Your task to perform on an android device: Do I have any events today? Image 0: 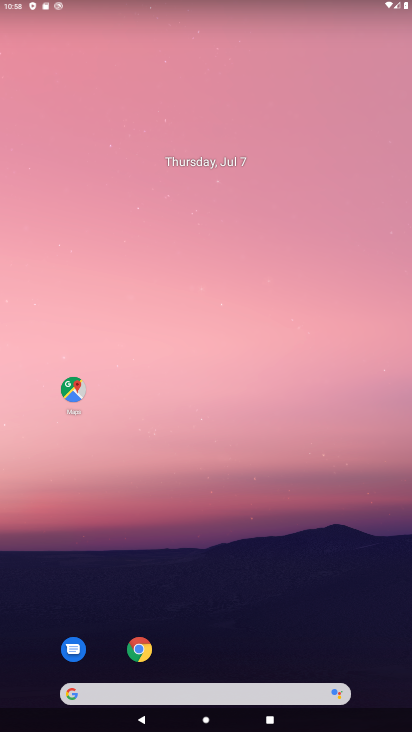
Step 0: drag from (210, 640) to (161, 26)
Your task to perform on an android device: Do I have any events today? Image 1: 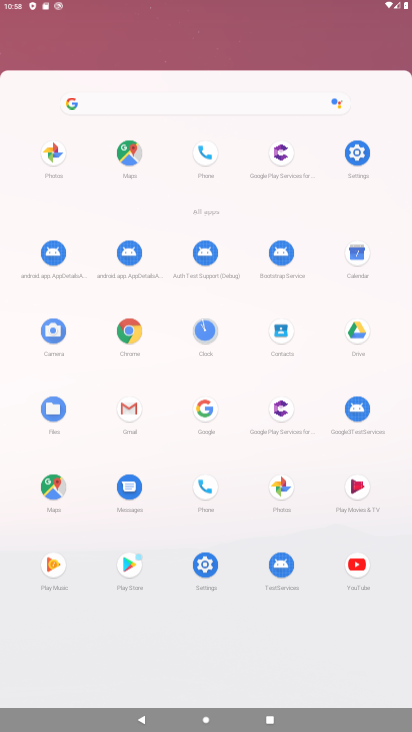
Step 1: drag from (305, 461) to (245, 50)
Your task to perform on an android device: Do I have any events today? Image 2: 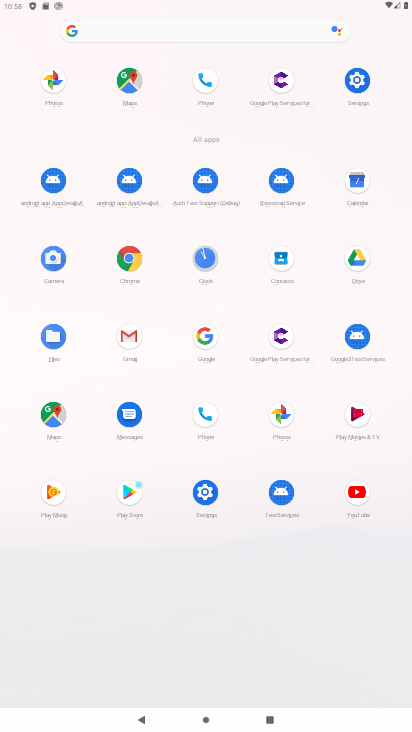
Step 2: drag from (271, 338) to (221, 3)
Your task to perform on an android device: Do I have any events today? Image 3: 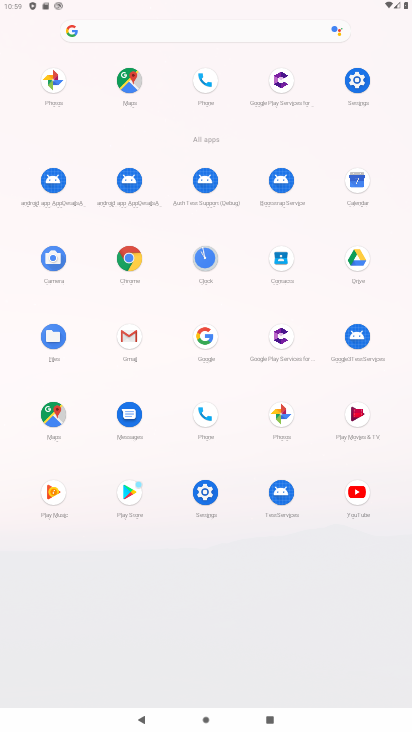
Step 3: click (357, 185)
Your task to perform on an android device: Do I have any events today? Image 4: 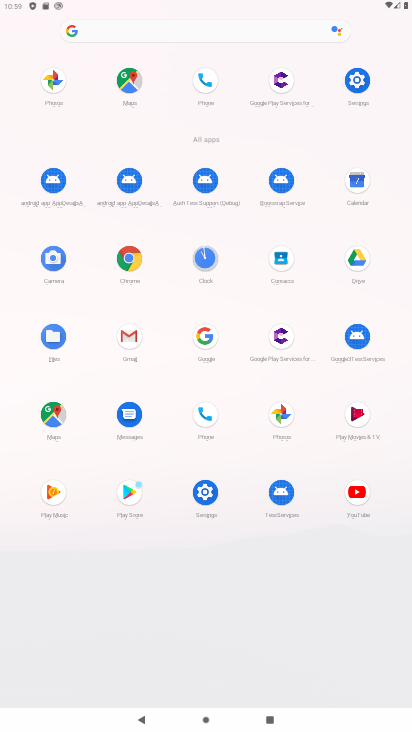
Step 4: click (365, 185)
Your task to perform on an android device: Do I have any events today? Image 5: 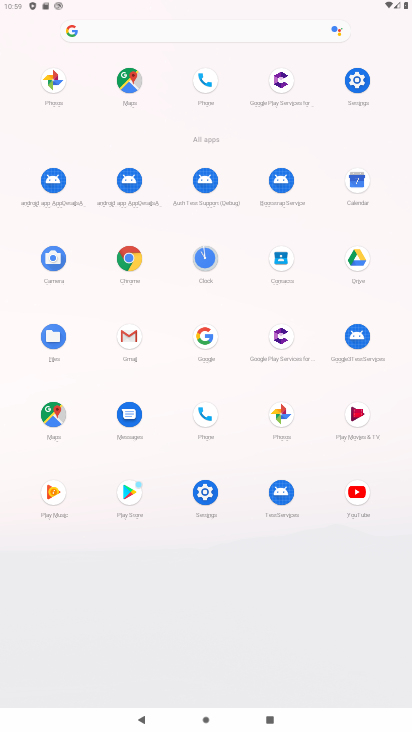
Step 5: click (361, 185)
Your task to perform on an android device: Do I have any events today? Image 6: 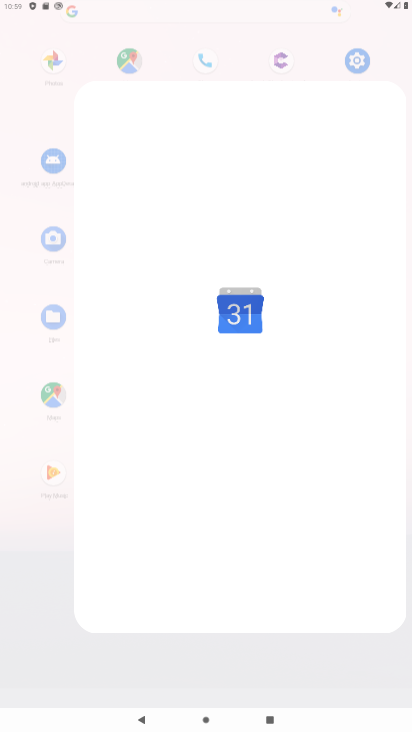
Step 6: click (358, 190)
Your task to perform on an android device: Do I have any events today? Image 7: 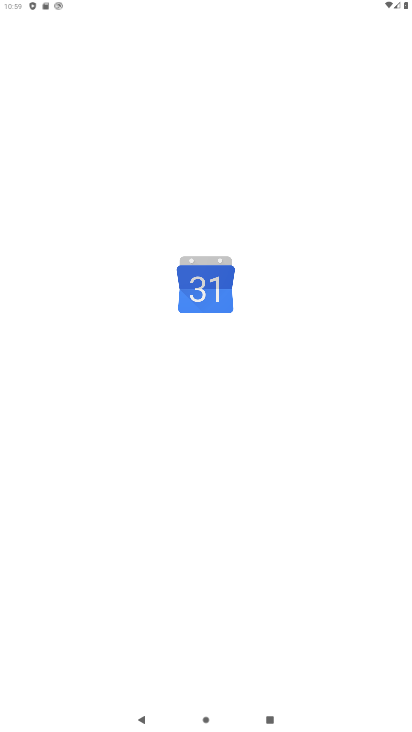
Step 7: click (352, 187)
Your task to perform on an android device: Do I have any events today? Image 8: 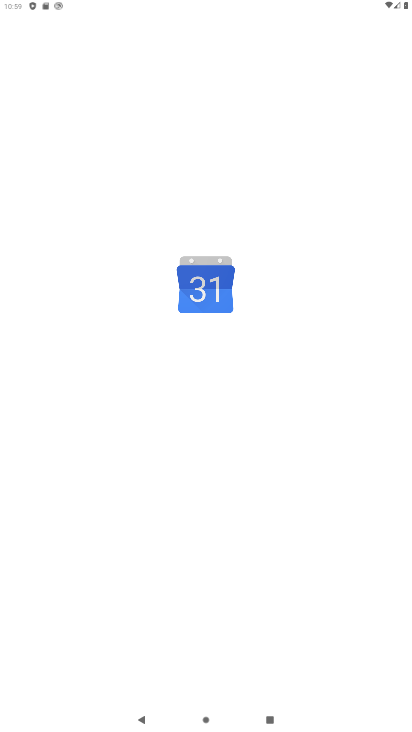
Step 8: click (352, 186)
Your task to perform on an android device: Do I have any events today? Image 9: 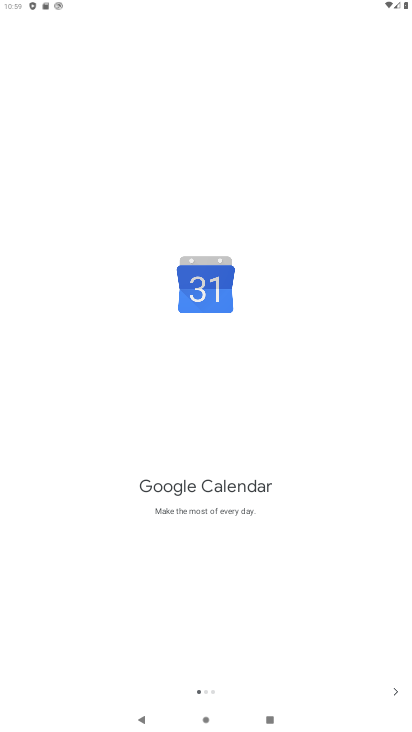
Step 9: click (362, 184)
Your task to perform on an android device: Do I have any events today? Image 10: 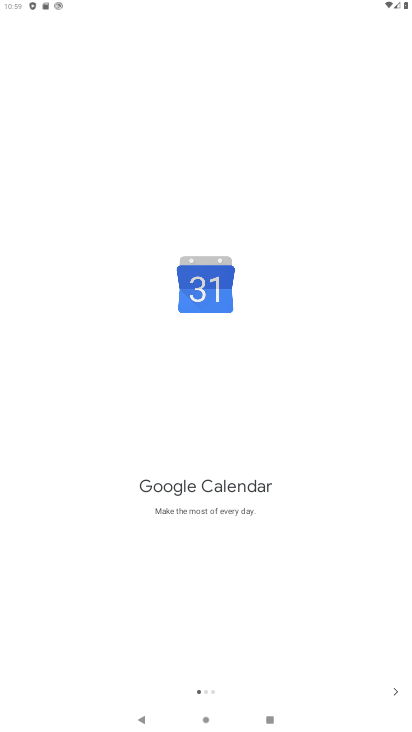
Step 10: click (358, 190)
Your task to perform on an android device: Do I have any events today? Image 11: 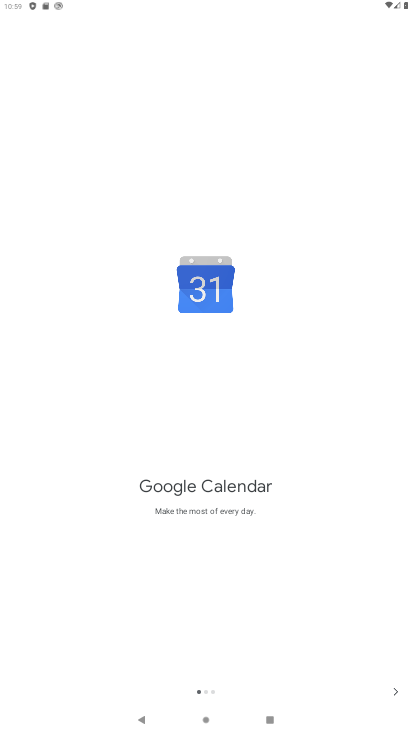
Step 11: click (397, 698)
Your task to perform on an android device: Do I have any events today? Image 12: 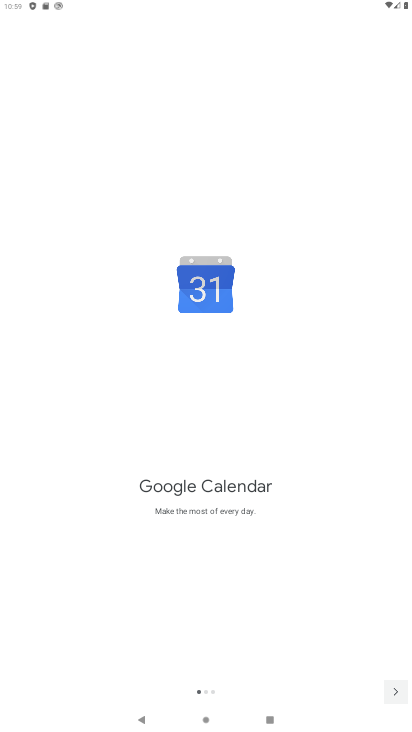
Step 12: click (399, 695)
Your task to perform on an android device: Do I have any events today? Image 13: 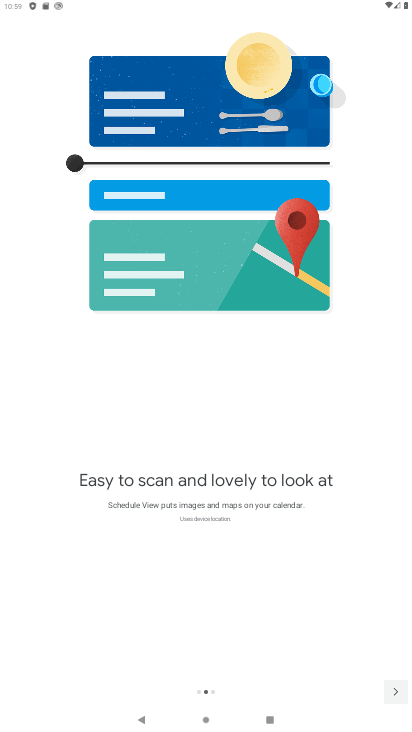
Step 13: click (403, 692)
Your task to perform on an android device: Do I have any events today? Image 14: 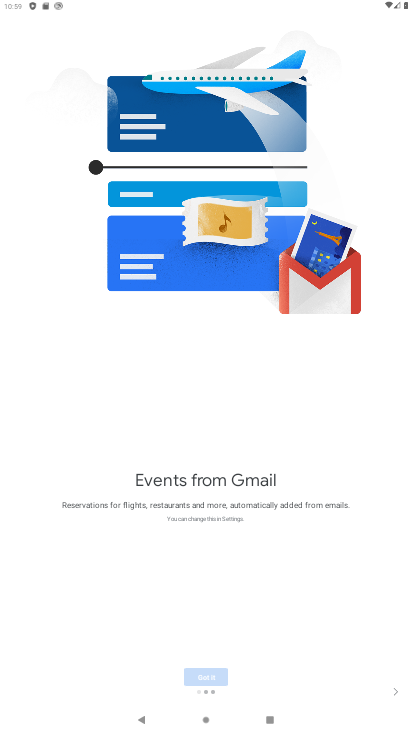
Step 14: click (405, 693)
Your task to perform on an android device: Do I have any events today? Image 15: 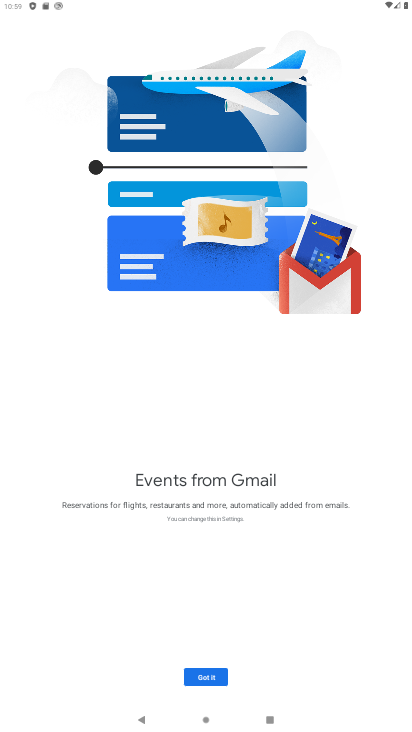
Step 15: click (403, 697)
Your task to perform on an android device: Do I have any events today? Image 16: 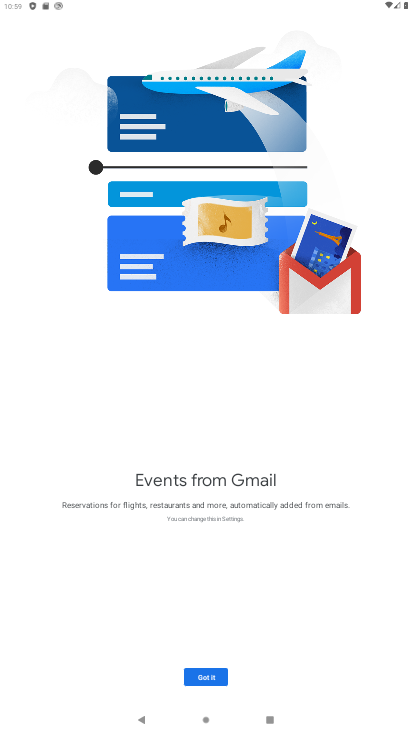
Step 16: click (403, 697)
Your task to perform on an android device: Do I have any events today? Image 17: 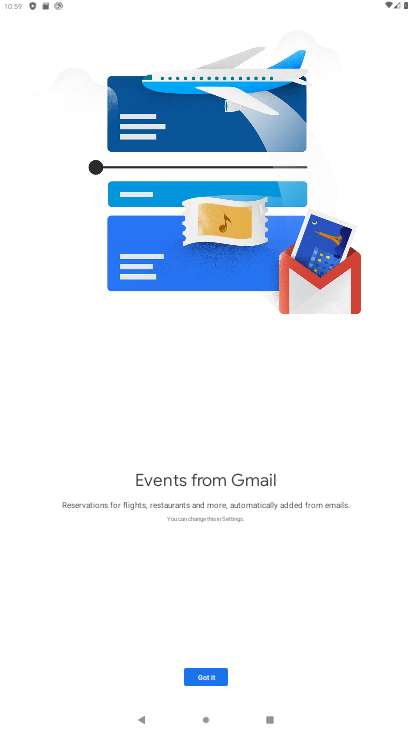
Step 17: click (403, 703)
Your task to perform on an android device: Do I have any events today? Image 18: 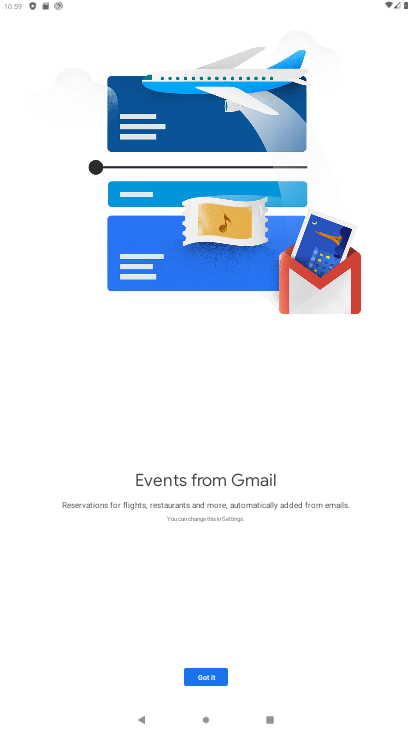
Step 18: click (208, 672)
Your task to perform on an android device: Do I have any events today? Image 19: 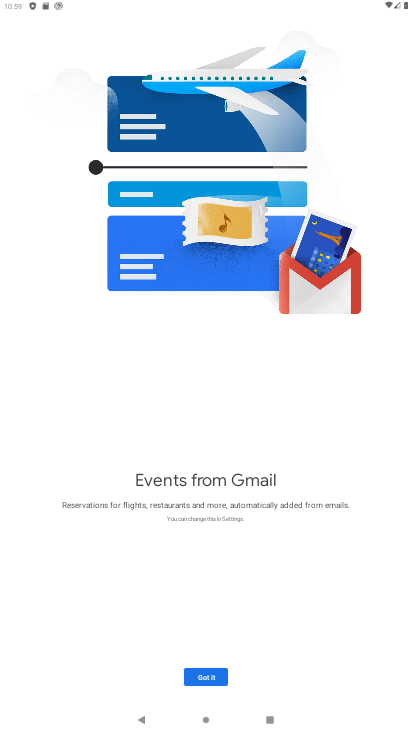
Step 19: click (210, 679)
Your task to perform on an android device: Do I have any events today? Image 20: 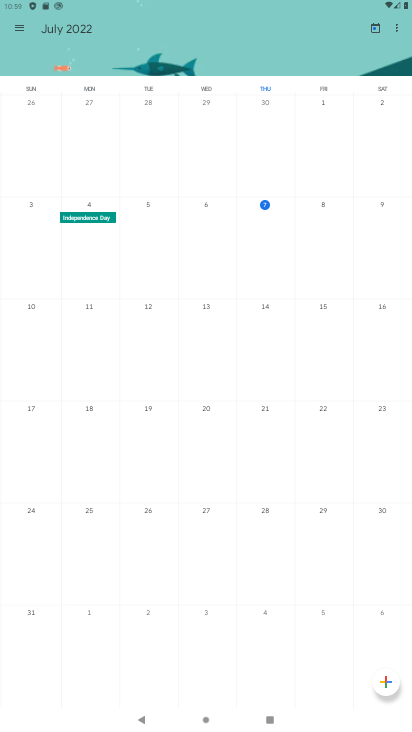
Step 20: task complete